Your task to perform on an android device: Open Chrome and go to settings Image 0: 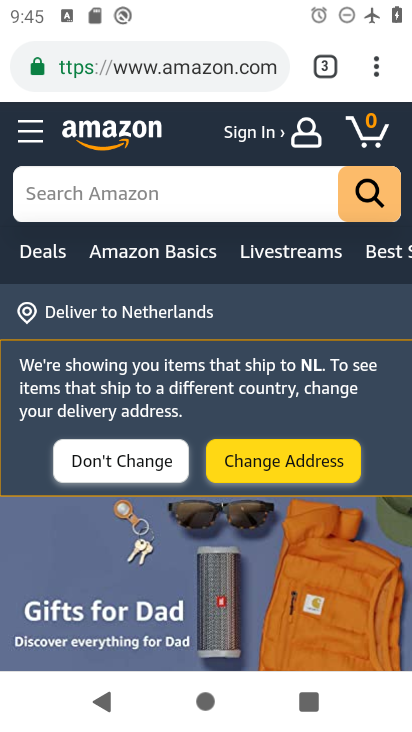
Step 0: click (370, 63)
Your task to perform on an android device: Open Chrome and go to settings Image 1: 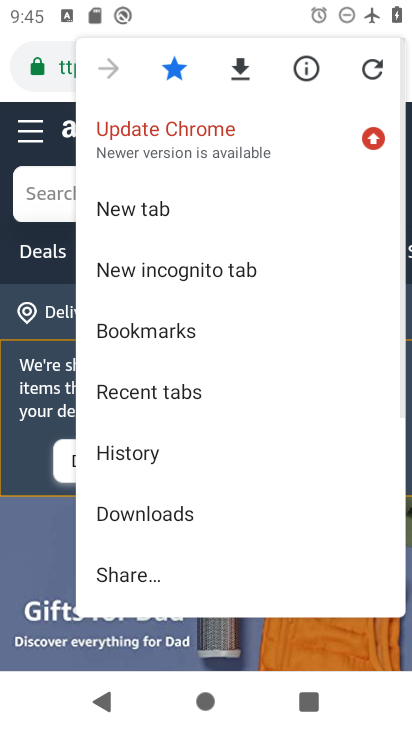
Step 1: drag from (225, 462) to (225, 196)
Your task to perform on an android device: Open Chrome and go to settings Image 2: 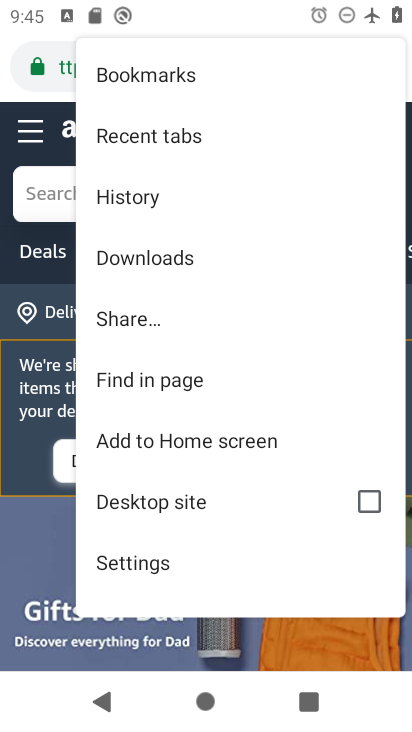
Step 2: click (152, 554)
Your task to perform on an android device: Open Chrome and go to settings Image 3: 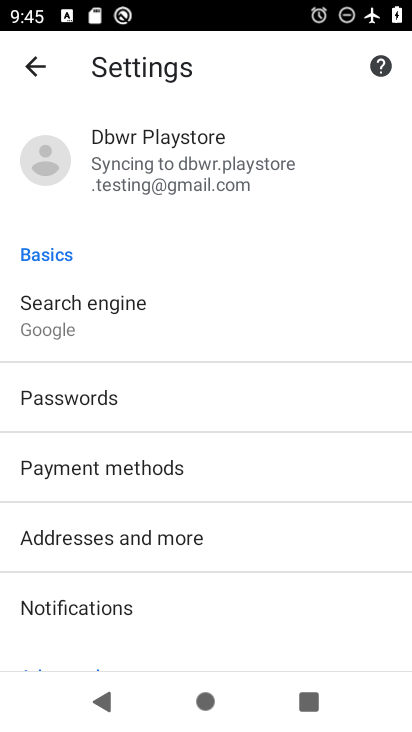
Step 3: task complete